Your task to perform on an android device: find which apps use the phone's location Image 0: 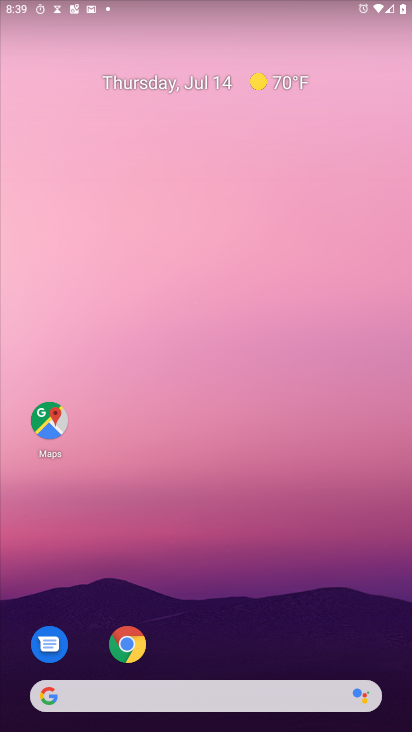
Step 0: drag from (232, 689) to (286, 185)
Your task to perform on an android device: find which apps use the phone's location Image 1: 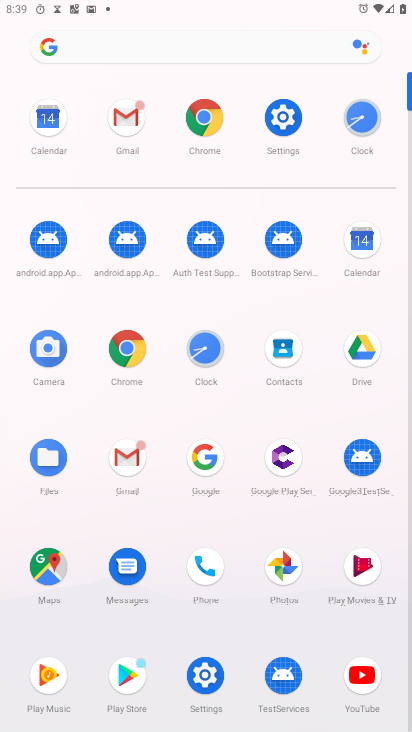
Step 1: click (276, 126)
Your task to perform on an android device: find which apps use the phone's location Image 2: 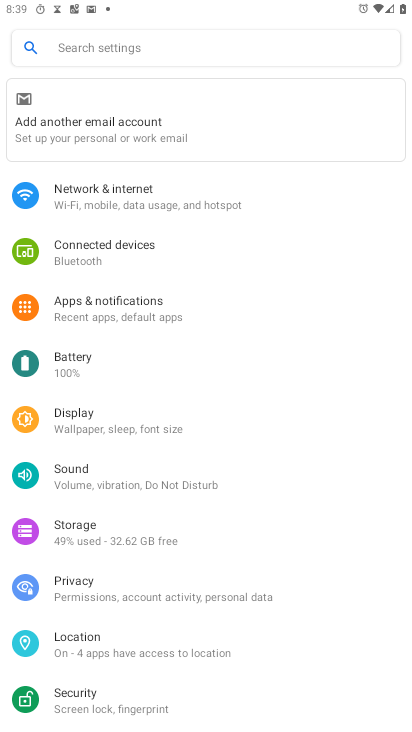
Step 2: click (118, 636)
Your task to perform on an android device: find which apps use the phone's location Image 3: 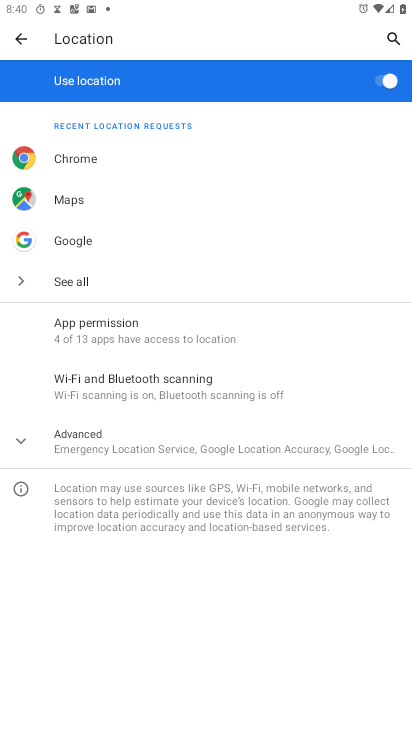
Step 3: click (111, 328)
Your task to perform on an android device: find which apps use the phone's location Image 4: 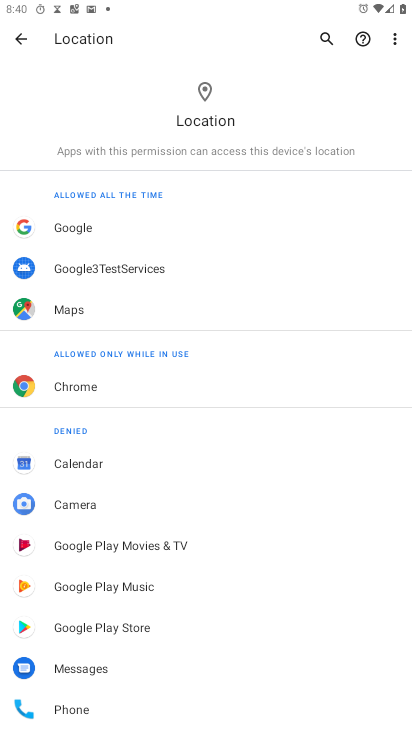
Step 4: drag from (201, 633) to (257, 231)
Your task to perform on an android device: find which apps use the phone's location Image 5: 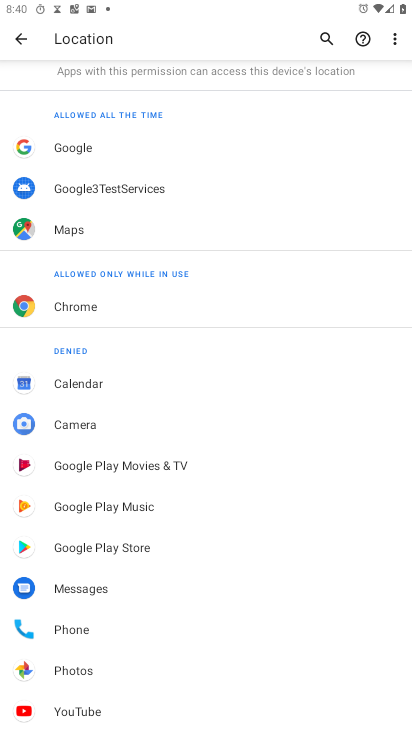
Step 5: click (82, 633)
Your task to perform on an android device: find which apps use the phone's location Image 6: 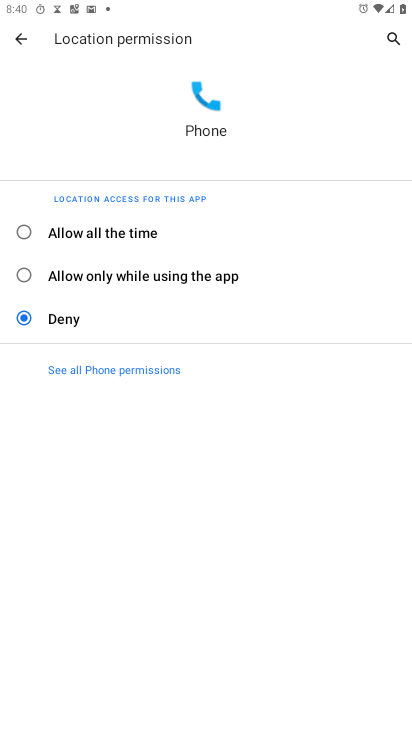
Step 6: task complete